Your task to perform on an android device: Open Youtube and go to "Your channel" Image 0: 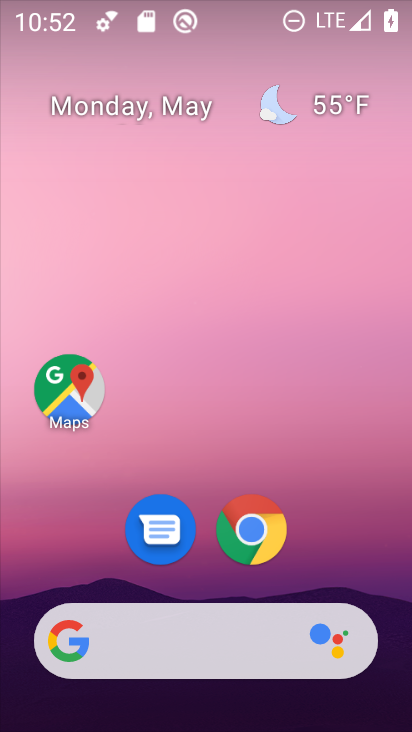
Step 0: drag from (205, 629) to (199, 94)
Your task to perform on an android device: Open Youtube and go to "Your channel" Image 1: 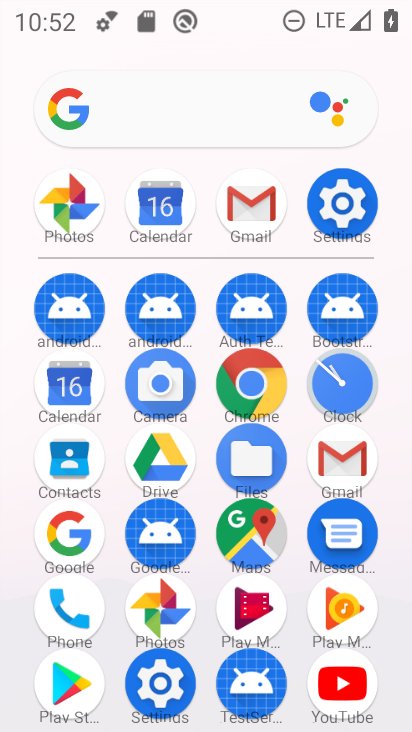
Step 1: click (325, 678)
Your task to perform on an android device: Open Youtube and go to "Your channel" Image 2: 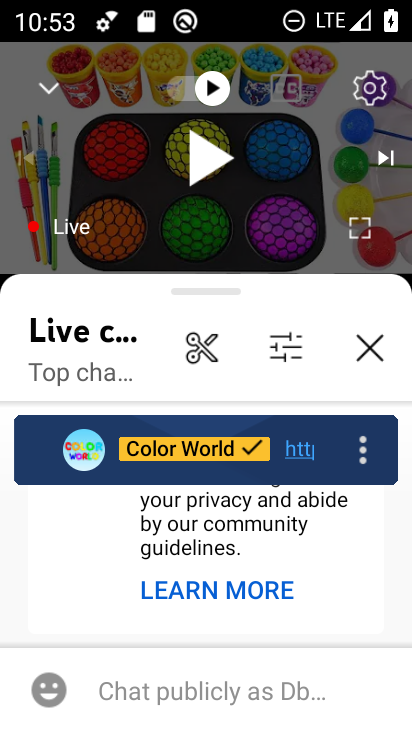
Step 2: click (48, 106)
Your task to perform on an android device: Open Youtube and go to "Your channel" Image 3: 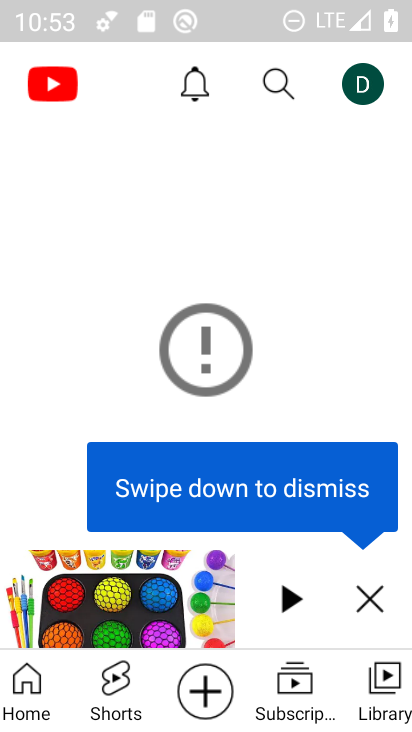
Step 3: click (350, 86)
Your task to perform on an android device: Open Youtube and go to "Your channel" Image 4: 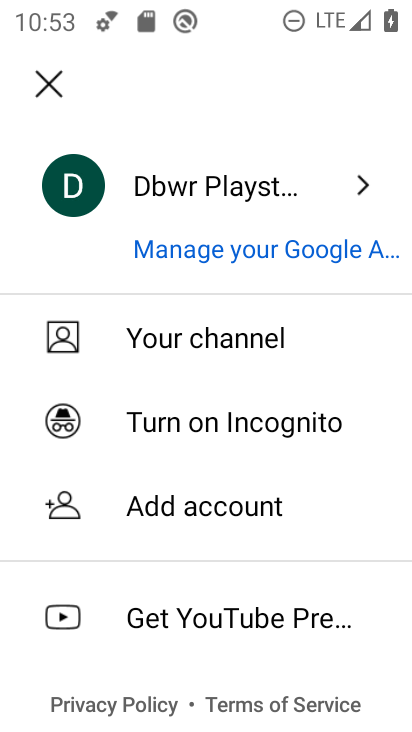
Step 4: click (172, 335)
Your task to perform on an android device: Open Youtube and go to "Your channel" Image 5: 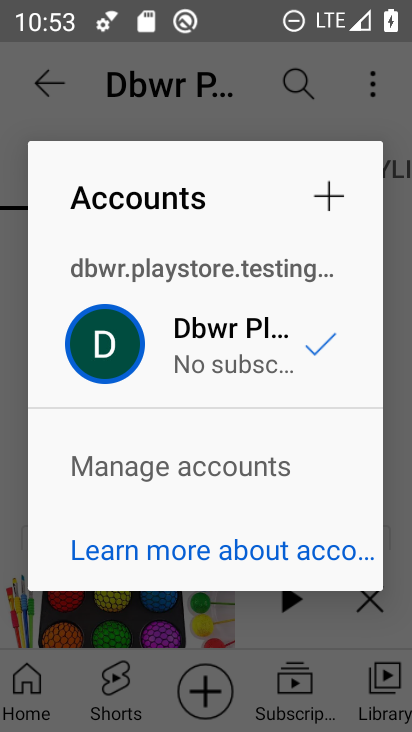
Step 5: click (198, 317)
Your task to perform on an android device: Open Youtube and go to "Your channel" Image 6: 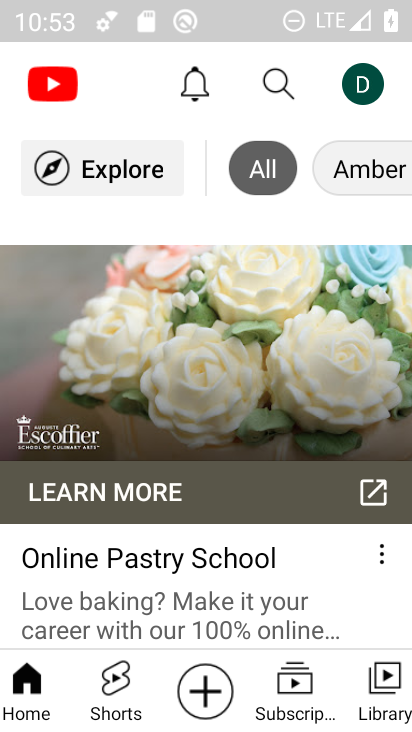
Step 6: task complete